Your task to perform on an android device: Open Android settings Image 0: 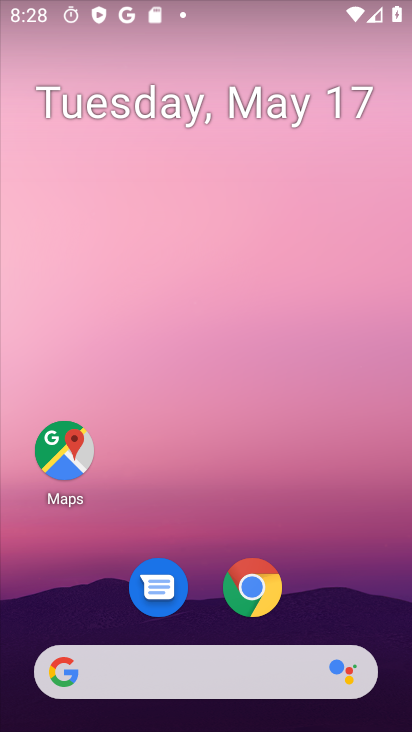
Step 0: drag from (310, 645) to (235, 53)
Your task to perform on an android device: Open Android settings Image 1: 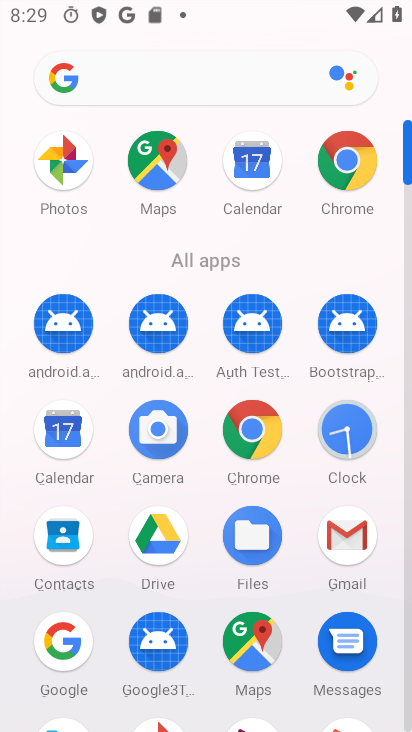
Step 1: drag from (329, 543) to (307, 233)
Your task to perform on an android device: Open Android settings Image 2: 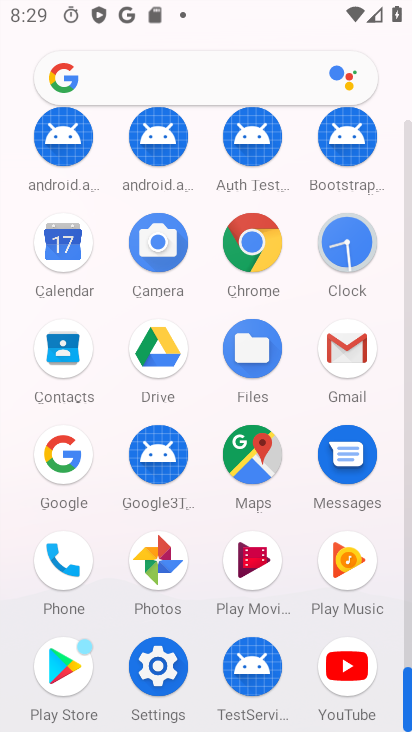
Step 2: drag from (300, 572) to (247, 268)
Your task to perform on an android device: Open Android settings Image 3: 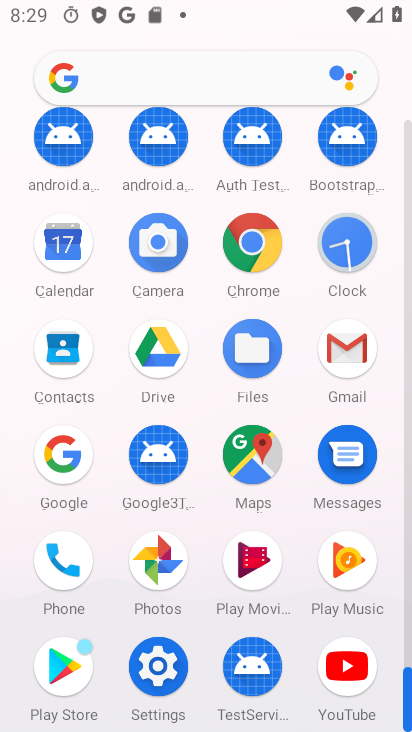
Step 3: drag from (245, 573) to (192, 205)
Your task to perform on an android device: Open Android settings Image 4: 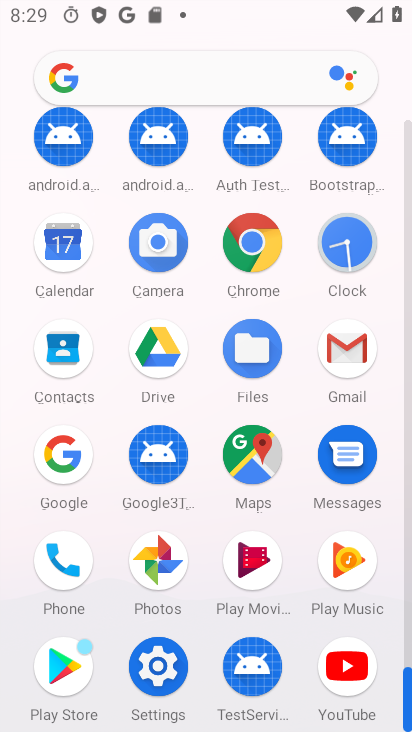
Step 4: click (146, 673)
Your task to perform on an android device: Open Android settings Image 5: 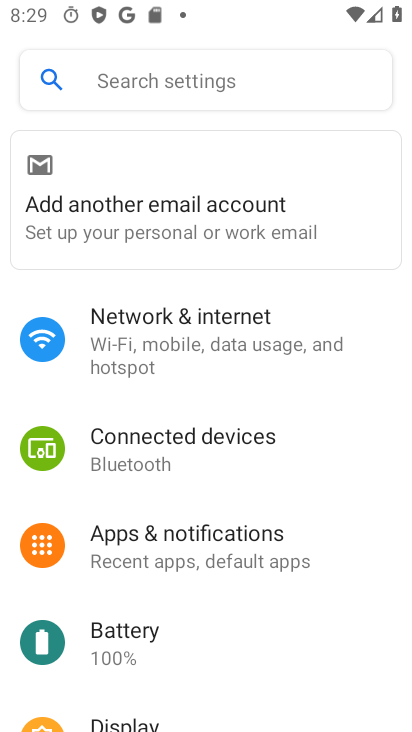
Step 5: drag from (157, 635) to (155, 176)
Your task to perform on an android device: Open Android settings Image 6: 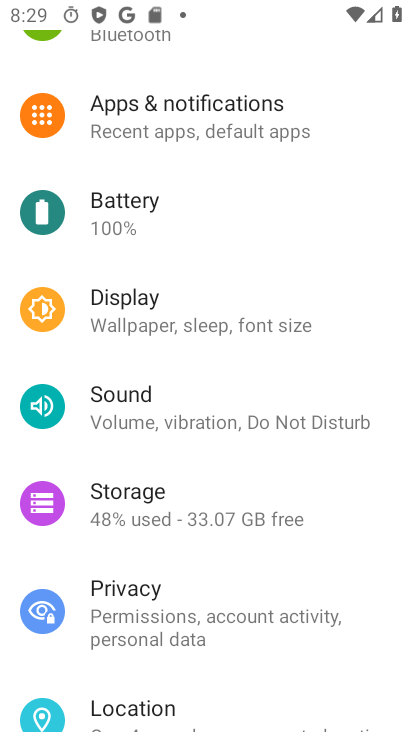
Step 6: drag from (225, 456) to (223, 173)
Your task to perform on an android device: Open Android settings Image 7: 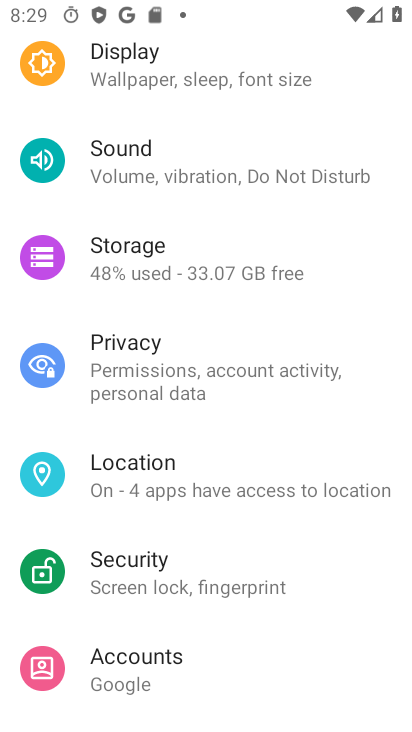
Step 7: drag from (204, 330) to (188, 143)
Your task to perform on an android device: Open Android settings Image 8: 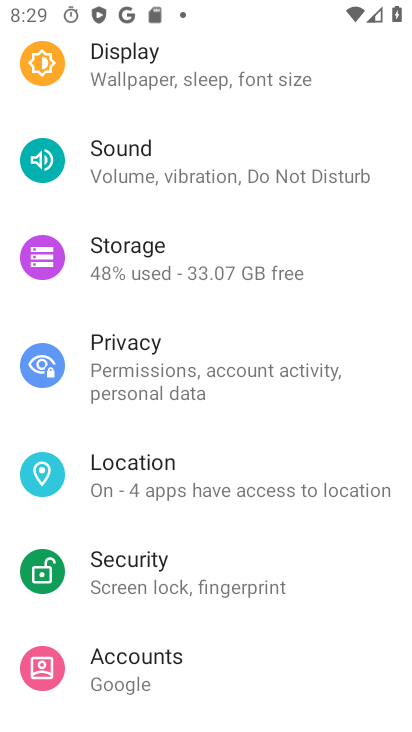
Step 8: drag from (170, 539) to (173, 193)
Your task to perform on an android device: Open Android settings Image 9: 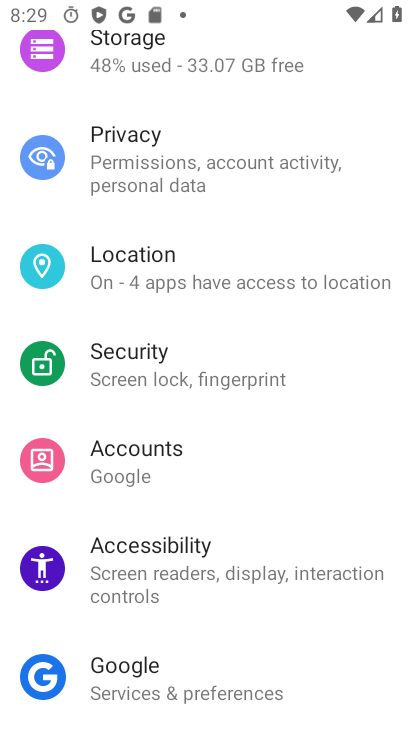
Step 9: drag from (168, 524) to (157, 159)
Your task to perform on an android device: Open Android settings Image 10: 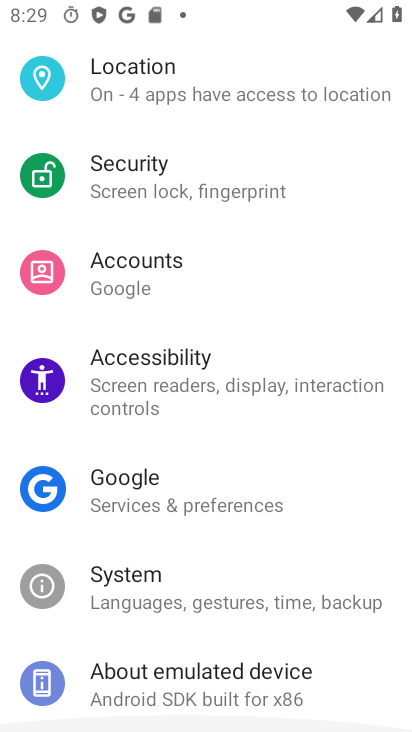
Step 10: drag from (217, 497) to (183, 264)
Your task to perform on an android device: Open Android settings Image 11: 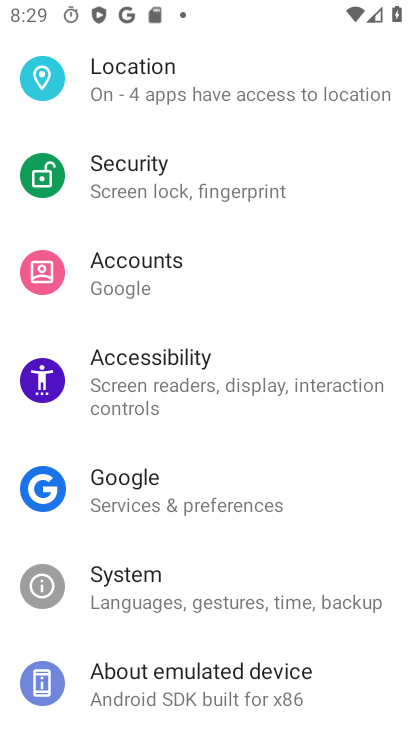
Step 11: click (172, 690)
Your task to perform on an android device: Open Android settings Image 12: 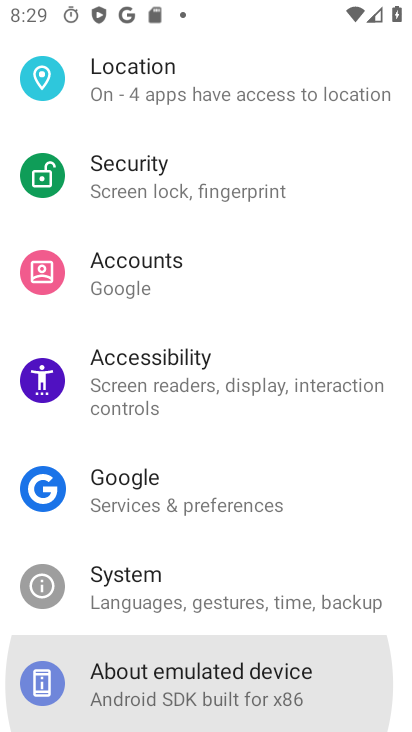
Step 12: click (173, 689)
Your task to perform on an android device: Open Android settings Image 13: 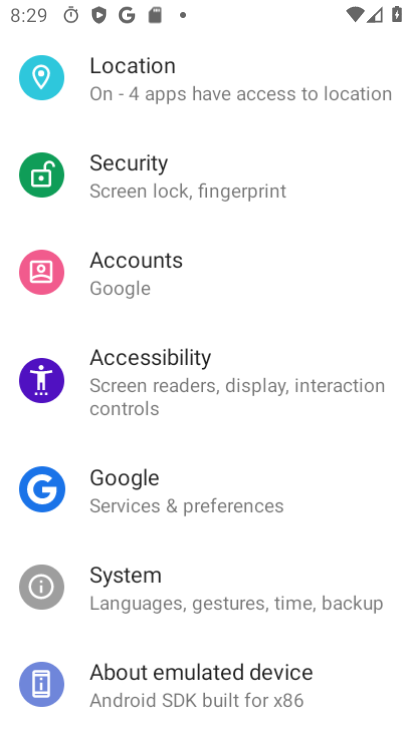
Step 13: click (173, 689)
Your task to perform on an android device: Open Android settings Image 14: 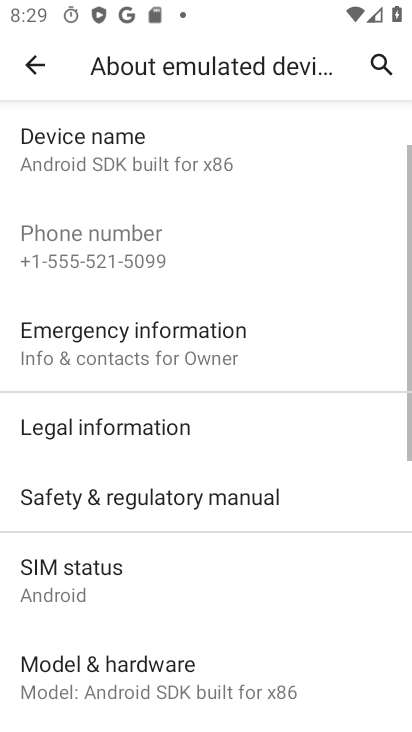
Step 14: click (173, 689)
Your task to perform on an android device: Open Android settings Image 15: 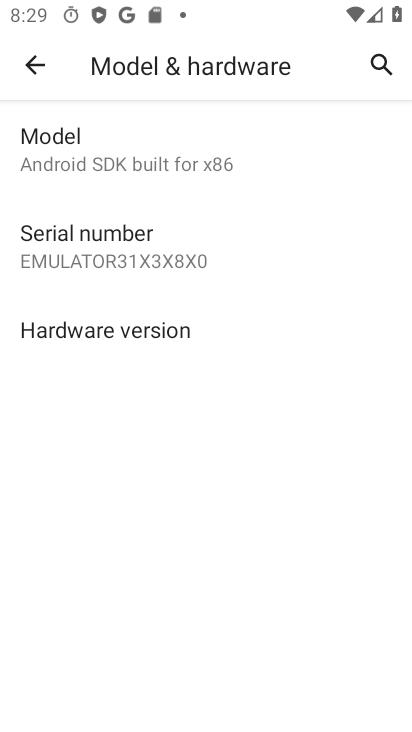
Step 15: click (29, 66)
Your task to perform on an android device: Open Android settings Image 16: 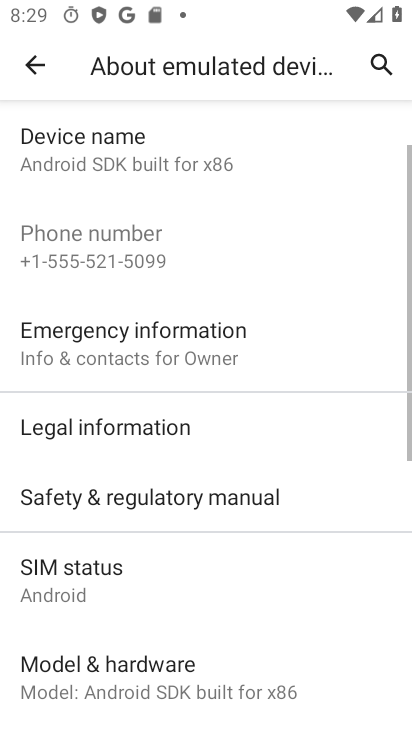
Step 16: task complete